Your task to perform on an android device: change keyboard looks Image 0: 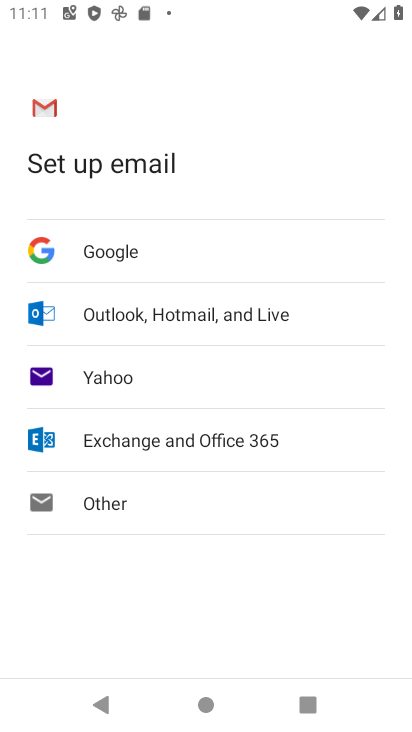
Step 0: press home button
Your task to perform on an android device: change keyboard looks Image 1: 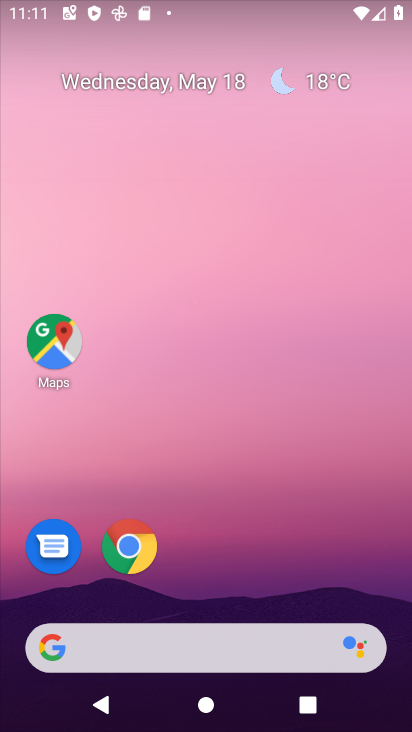
Step 1: drag from (236, 723) to (239, 287)
Your task to perform on an android device: change keyboard looks Image 2: 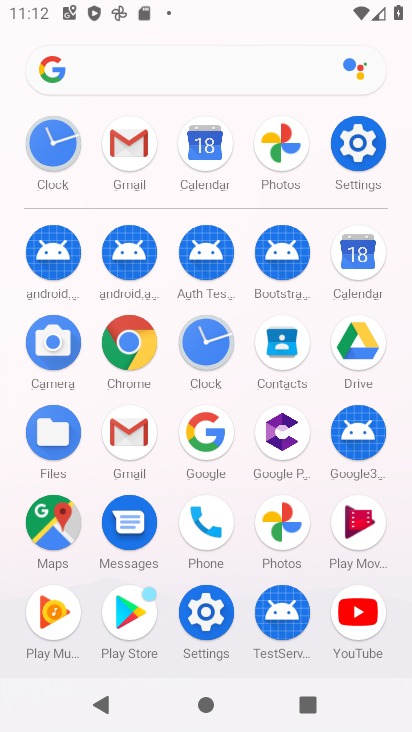
Step 2: click (363, 147)
Your task to perform on an android device: change keyboard looks Image 3: 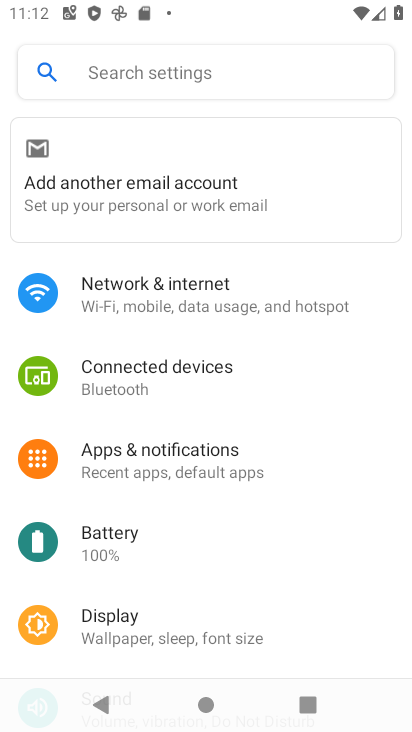
Step 3: drag from (176, 605) to (201, 319)
Your task to perform on an android device: change keyboard looks Image 4: 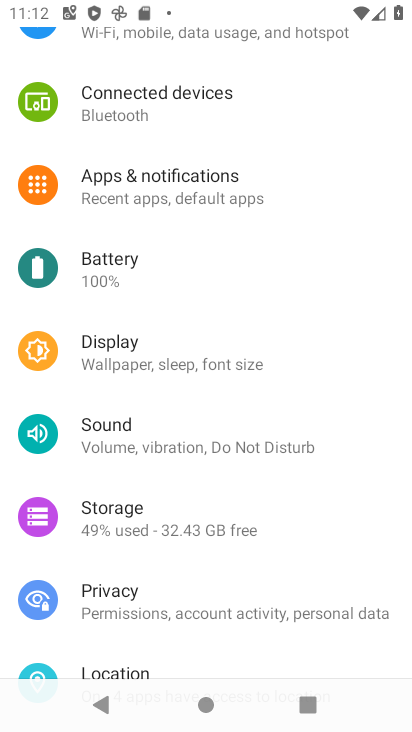
Step 4: drag from (206, 652) to (209, 239)
Your task to perform on an android device: change keyboard looks Image 5: 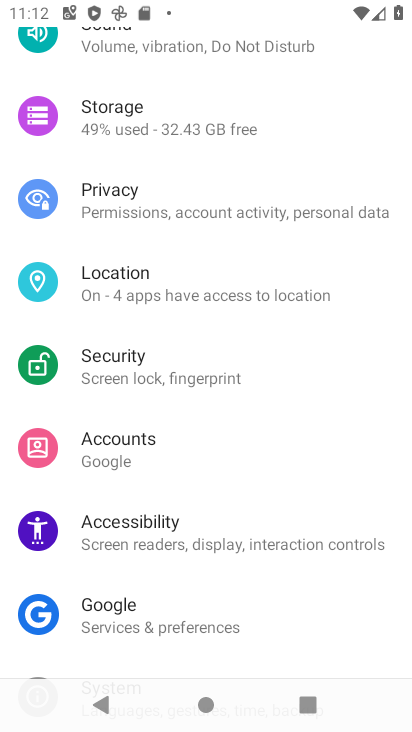
Step 5: drag from (178, 603) to (178, 253)
Your task to perform on an android device: change keyboard looks Image 6: 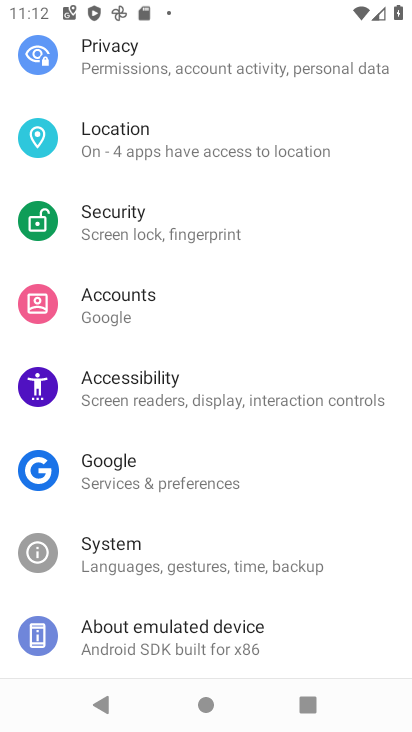
Step 6: click (146, 562)
Your task to perform on an android device: change keyboard looks Image 7: 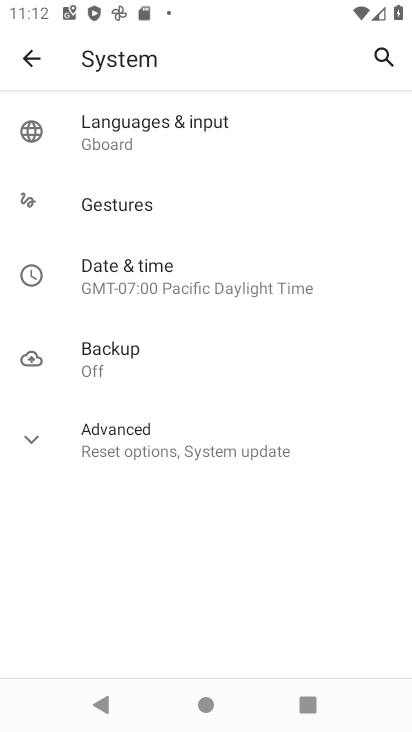
Step 7: click (103, 139)
Your task to perform on an android device: change keyboard looks Image 8: 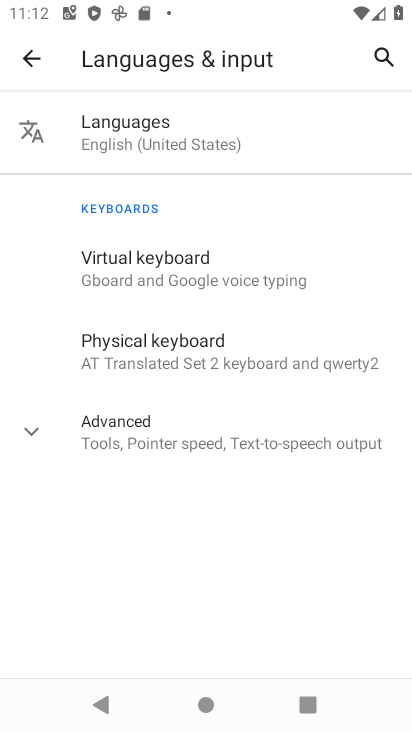
Step 8: click (107, 266)
Your task to perform on an android device: change keyboard looks Image 9: 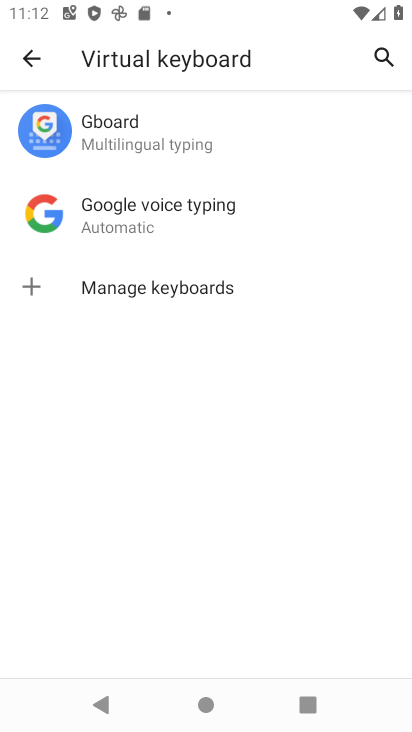
Step 9: click (140, 134)
Your task to perform on an android device: change keyboard looks Image 10: 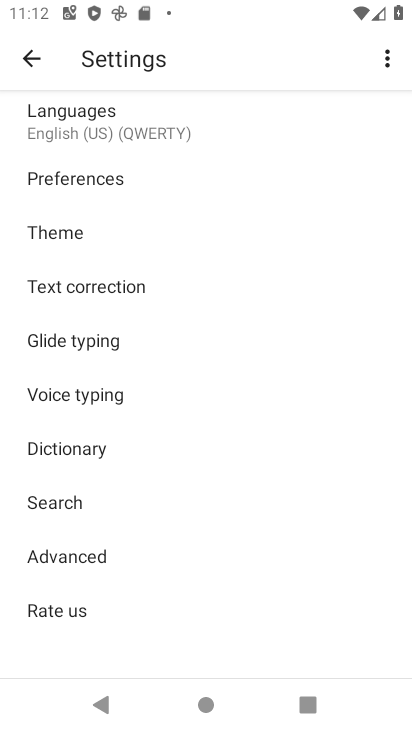
Step 10: click (58, 230)
Your task to perform on an android device: change keyboard looks Image 11: 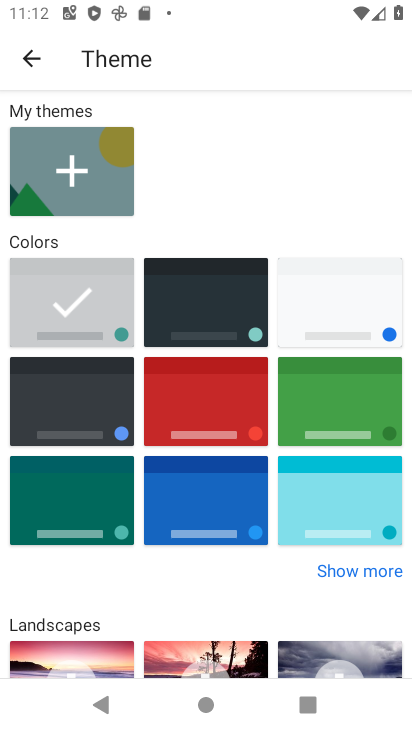
Step 11: click (215, 311)
Your task to perform on an android device: change keyboard looks Image 12: 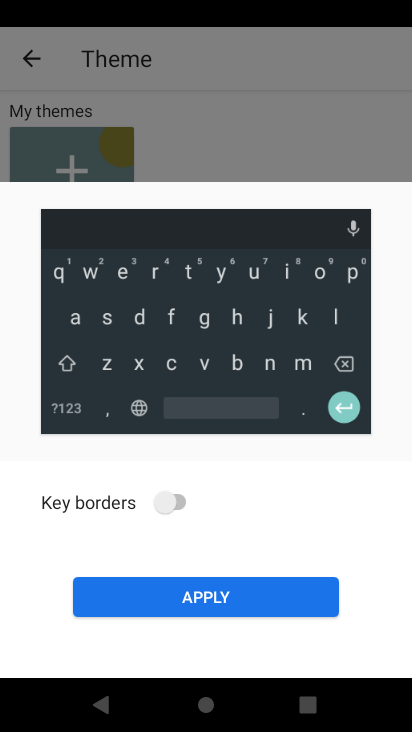
Step 12: click (177, 500)
Your task to perform on an android device: change keyboard looks Image 13: 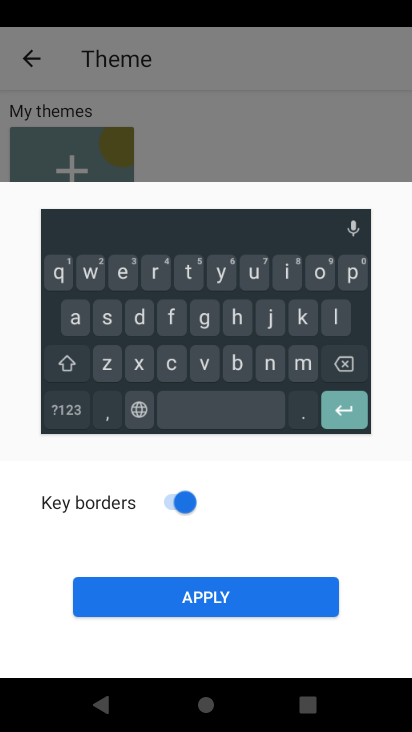
Step 13: click (211, 595)
Your task to perform on an android device: change keyboard looks Image 14: 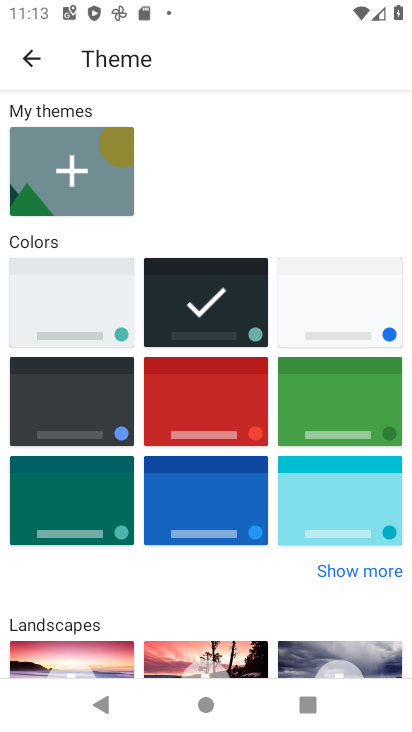
Step 14: task complete